Your task to perform on an android device: Open network settings Image 0: 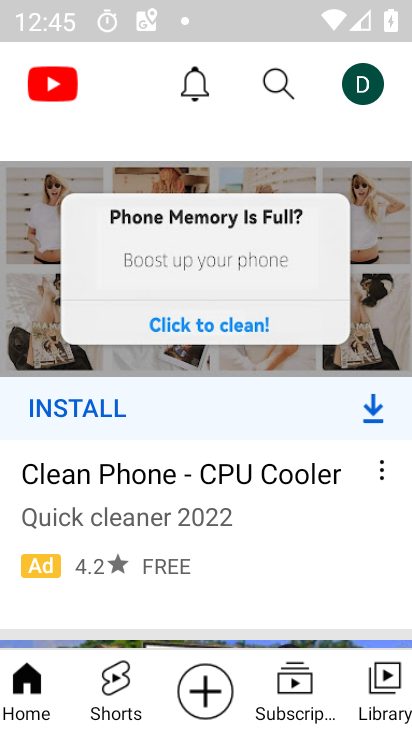
Step 0: drag from (229, 35) to (189, 635)
Your task to perform on an android device: Open network settings Image 1: 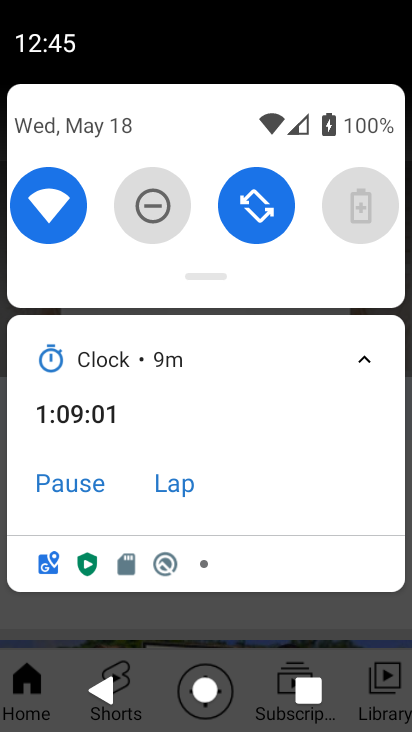
Step 1: drag from (251, 130) to (143, 728)
Your task to perform on an android device: Open network settings Image 2: 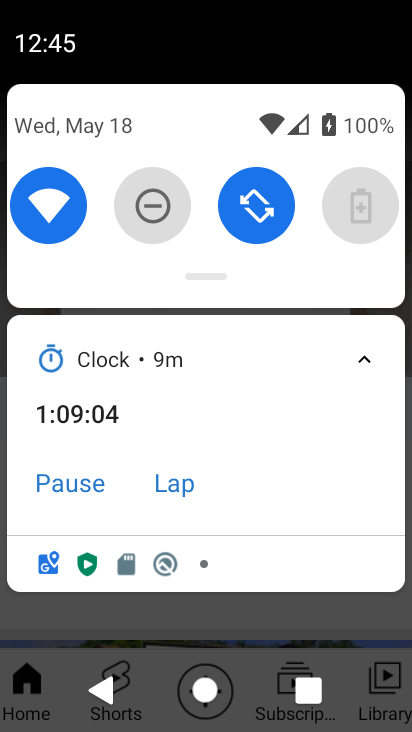
Step 2: drag from (326, 277) to (124, 722)
Your task to perform on an android device: Open network settings Image 3: 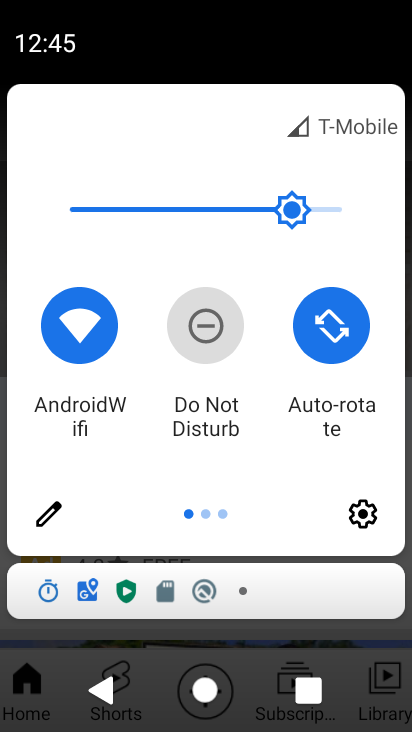
Step 3: drag from (360, 442) to (24, 450)
Your task to perform on an android device: Open network settings Image 4: 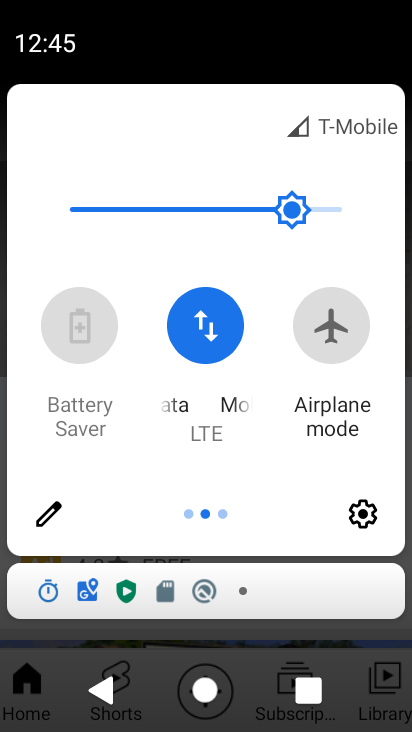
Step 4: click (226, 328)
Your task to perform on an android device: Open network settings Image 5: 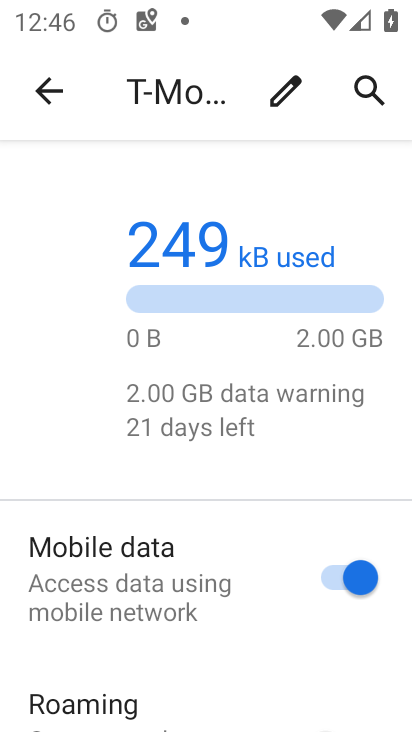
Step 5: task complete